Your task to perform on an android device: Find a good burger place on Maps Image 0: 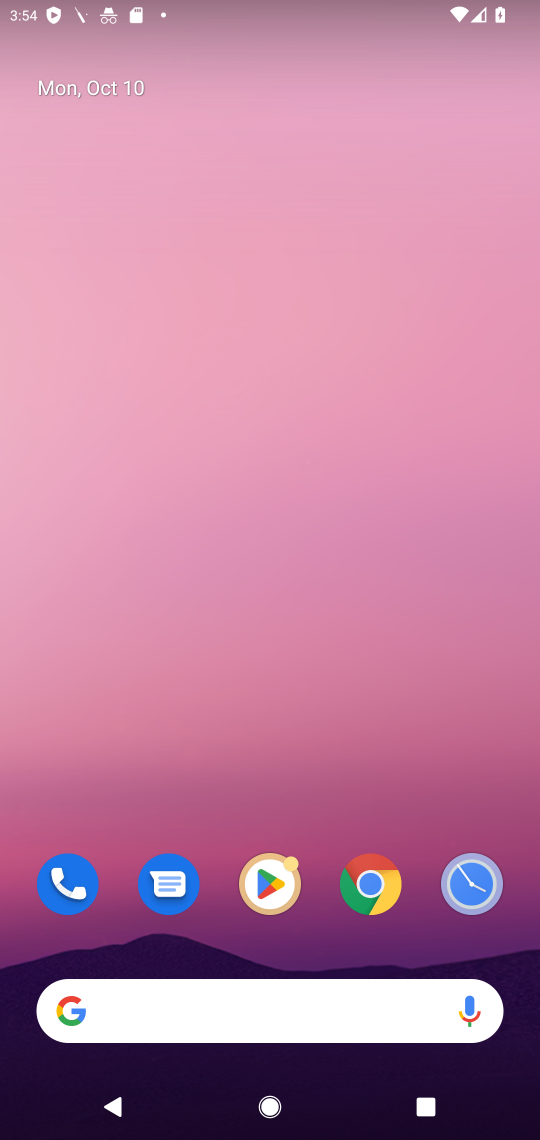
Step 0: click (171, 1000)
Your task to perform on an android device: Find a good burger place on Maps Image 1: 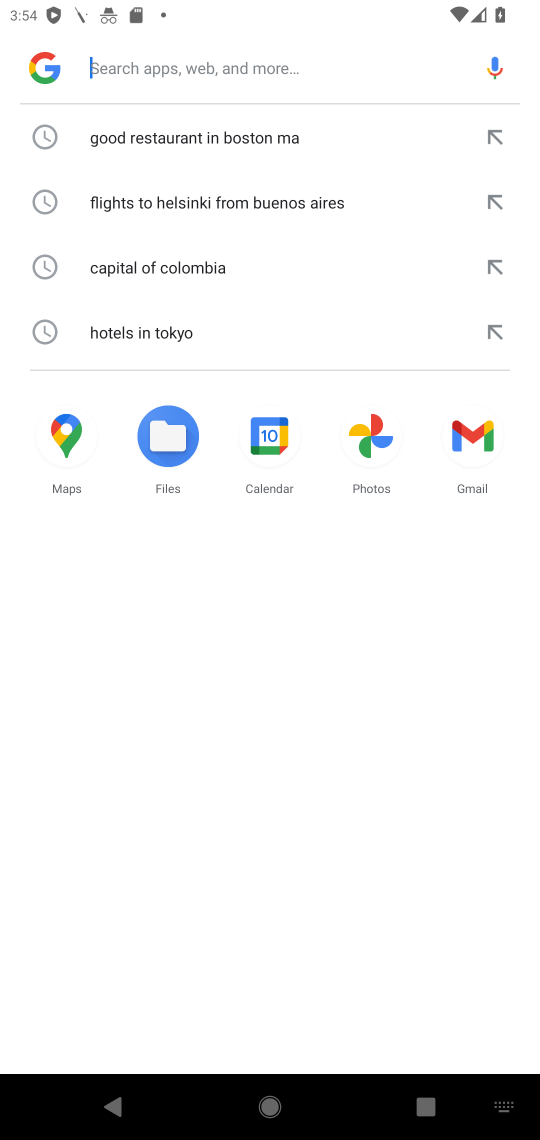
Step 1: type "good burger place on Maps"
Your task to perform on an android device: Find a good burger place on Maps Image 2: 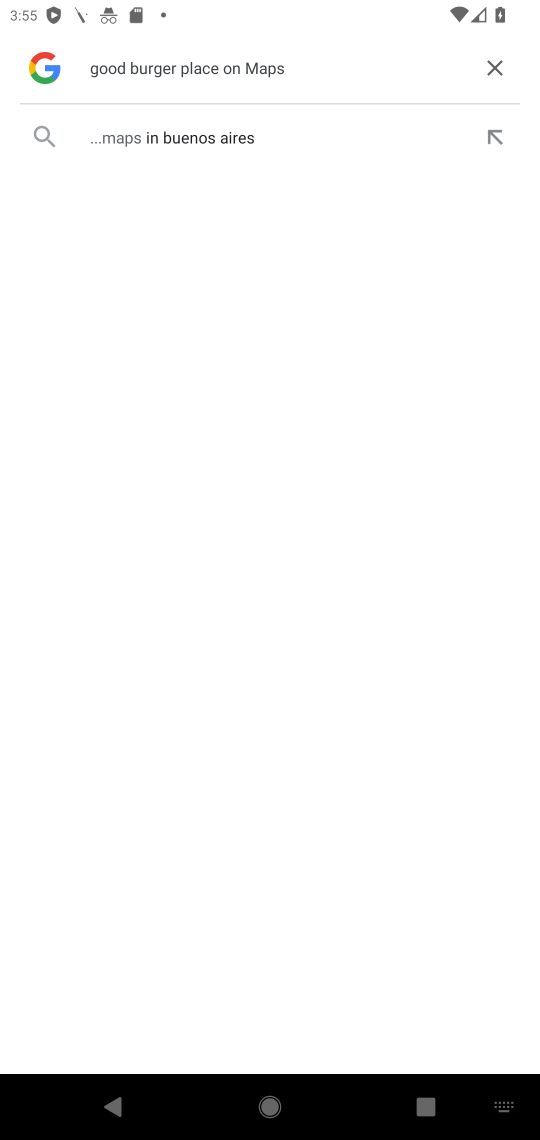
Step 2: click (232, 141)
Your task to perform on an android device: Find a good burger place on Maps Image 3: 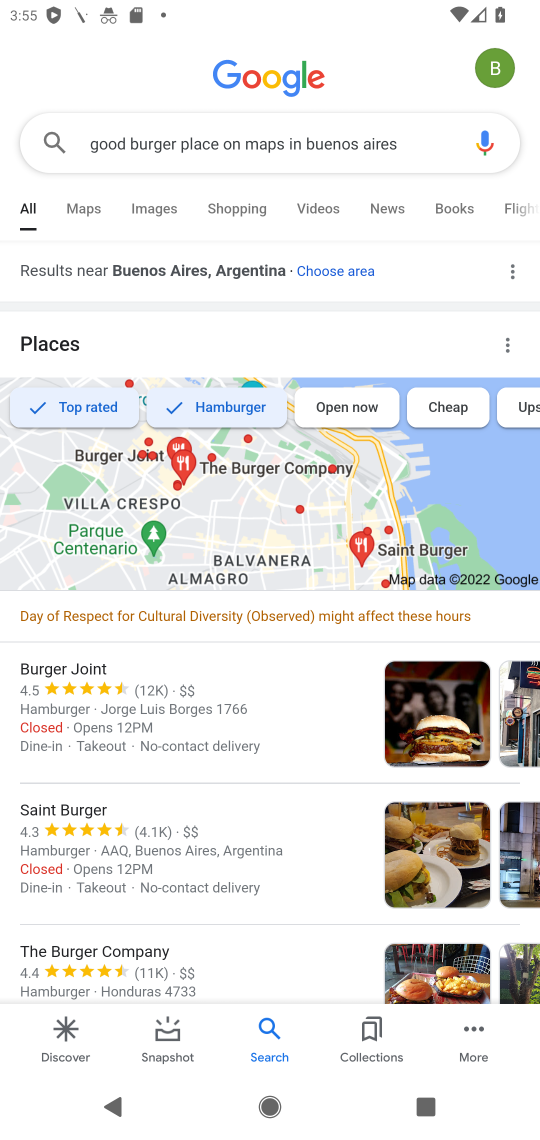
Step 3: task complete